Your task to perform on an android device: check storage Image 0: 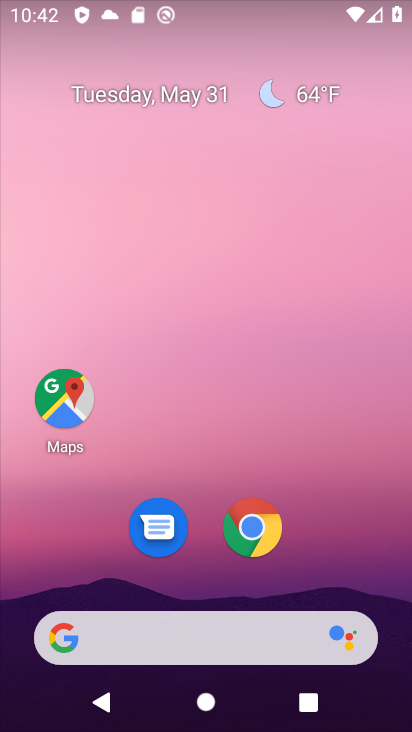
Step 0: drag from (240, 705) to (281, 9)
Your task to perform on an android device: check storage Image 1: 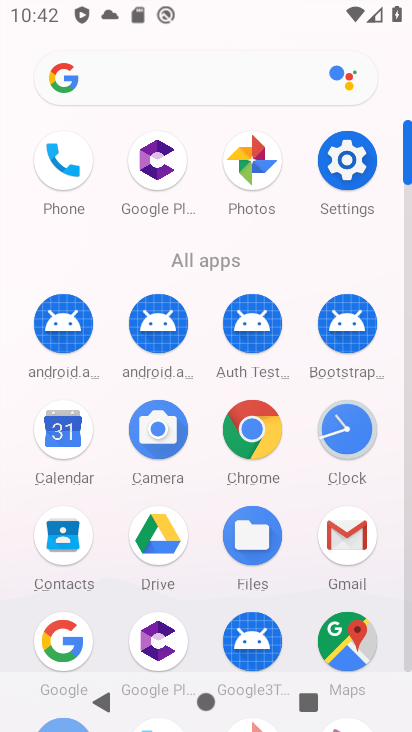
Step 1: click (365, 166)
Your task to perform on an android device: check storage Image 2: 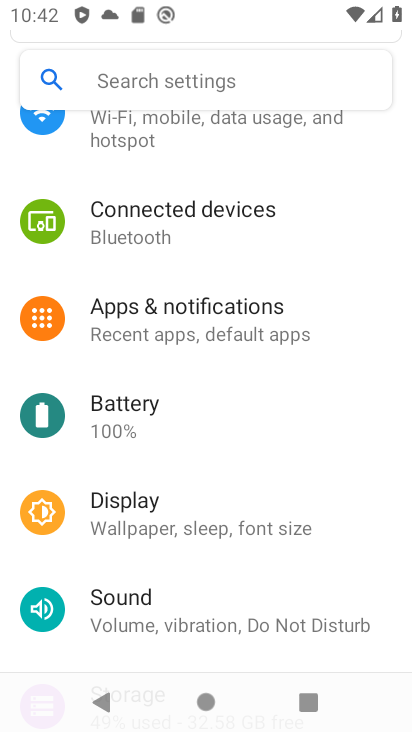
Step 2: drag from (215, 596) to (265, 135)
Your task to perform on an android device: check storage Image 3: 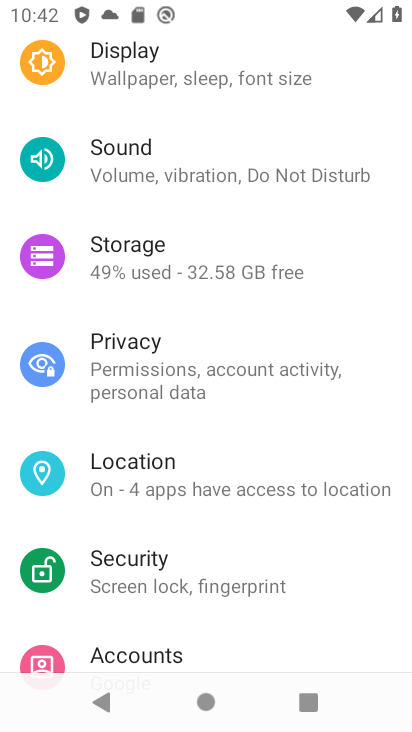
Step 3: click (166, 270)
Your task to perform on an android device: check storage Image 4: 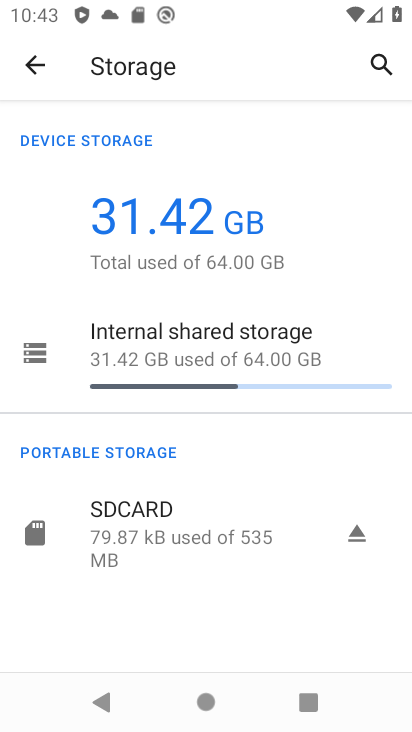
Step 4: task complete